Your task to perform on an android device: snooze an email in the gmail app Image 0: 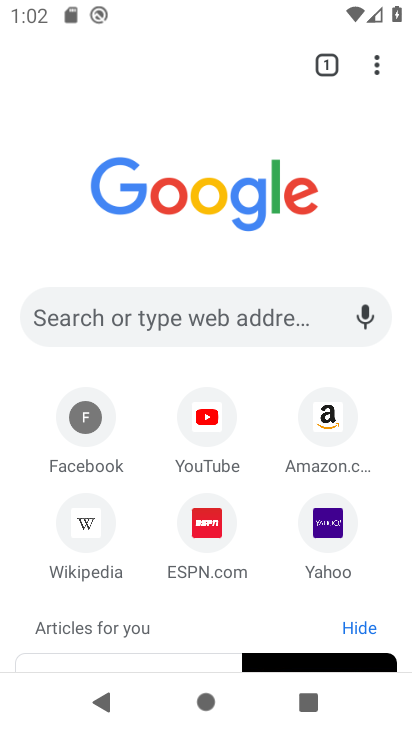
Step 0: press home button
Your task to perform on an android device: snooze an email in the gmail app Image 1: 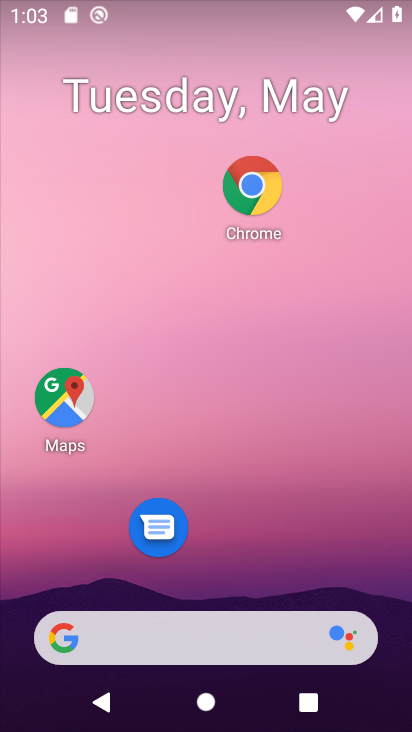
Step 1: drag from (281, 495) to (213, 18)
Your task to perform on an android device: snooze an email in the gmail app Image 2: 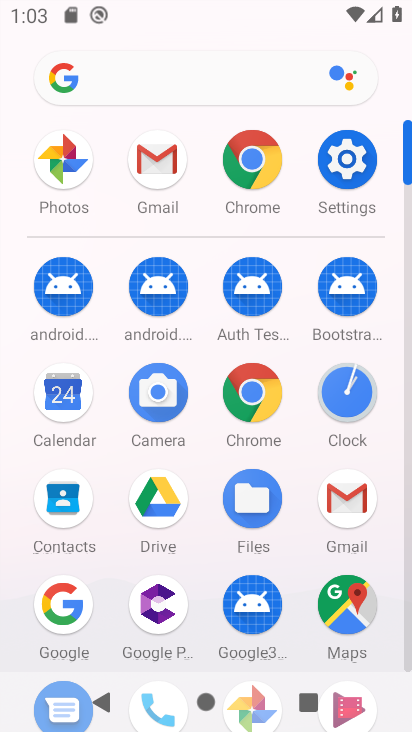
Step 2: click (162, 155)
Your task to perform on an android device: snooze an email in the gmail app Image 3: 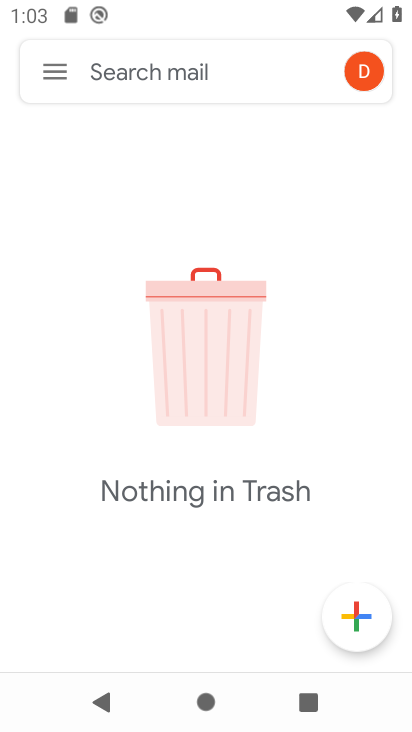
Step 3: click (48, 71)
Your task to perform on an android device: snooze an email in the gmail app Image 4: 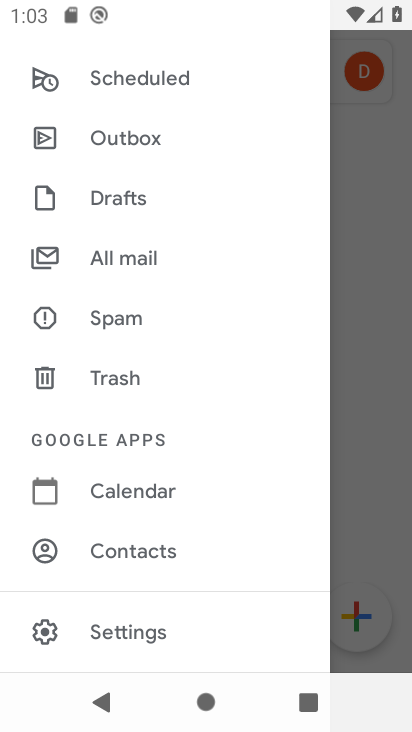
Step 4: click (123, 252)
Your task to perform on an android device: snooze an email in the gmail app Image 5: 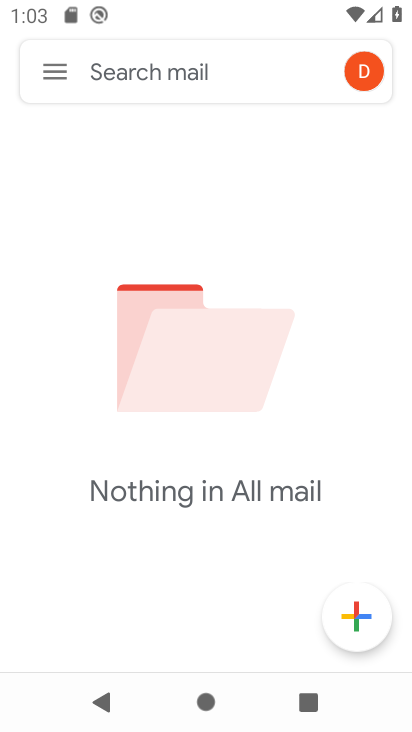
Step 5: task complete